Your task to perform on an android device: Open eBay Image 0: 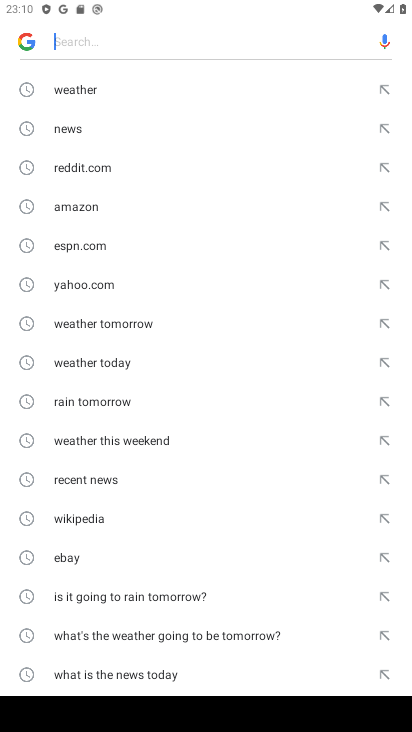
Step 0: press home button
Your task to perform on an android device: Open eBay Image 1: 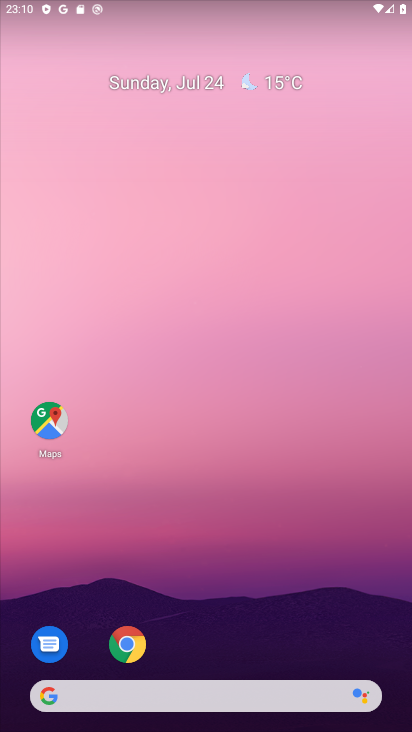
Step 1: drag from (217, 718) to (210, 236)
Your task to perform on an android device: Open eBay Image 2: 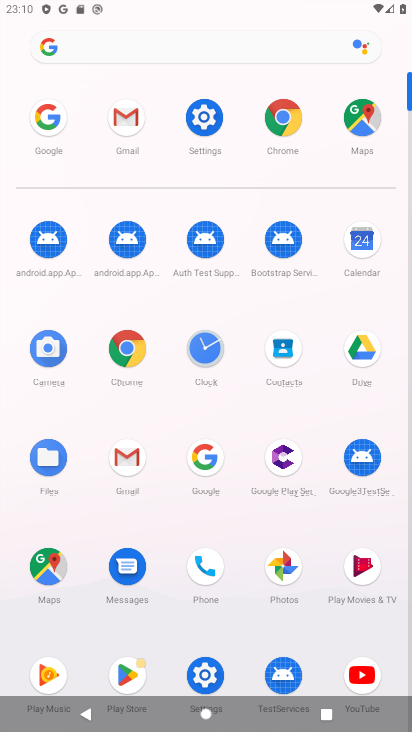
Step 2: click (280, 120)
Your task to perform on an android device: Open eBay Image 3: 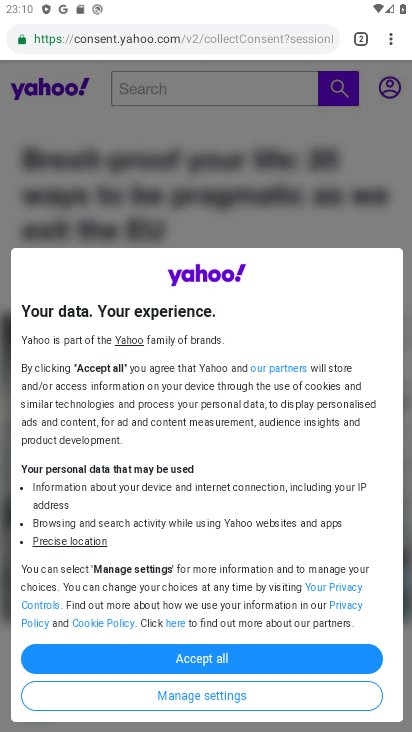
Step 3: click (390, 39)
Your task to perform on an android device: Open eBay Image 4: 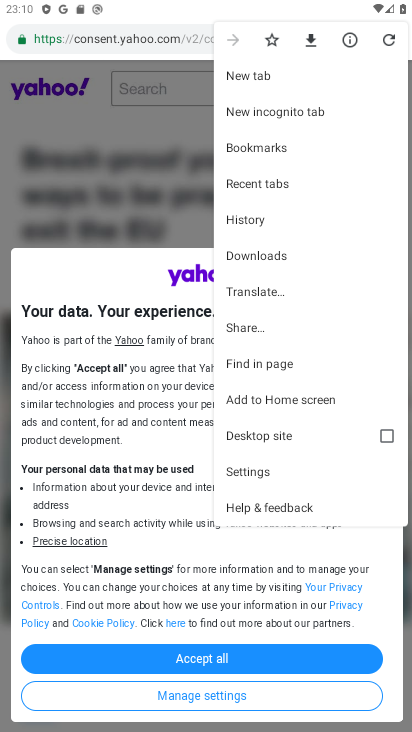
Step 4: click (241, 73)
Your task to perform on an android device: Open eBay Image 5: 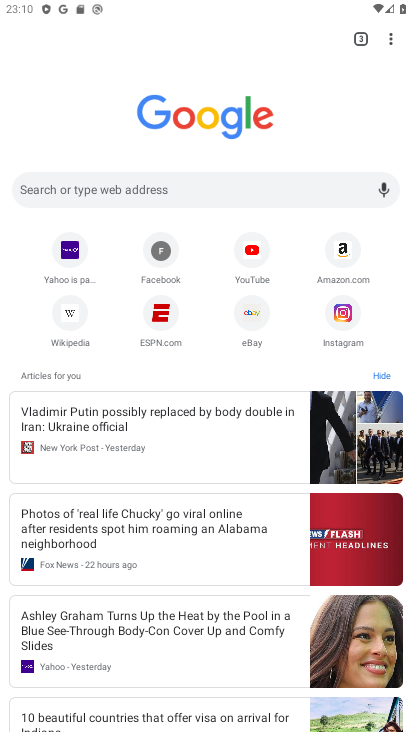
Step 5: click (250, 318)
Your task to perform on an android device: Open eBay Image 6: 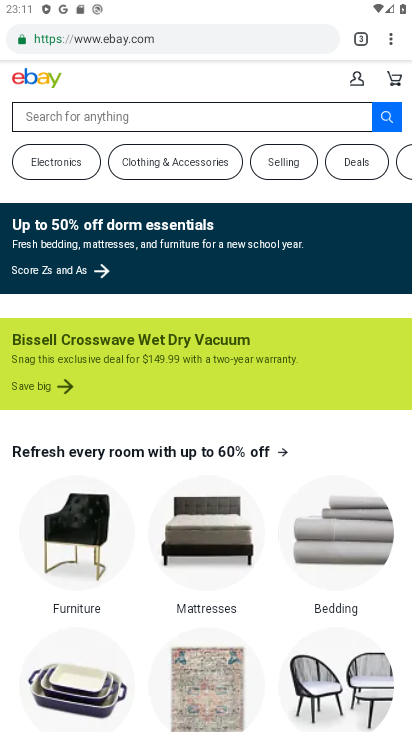
Step 6: task complete